Your task to perform on an android device: toggle javascript in the chrome app Image 0: 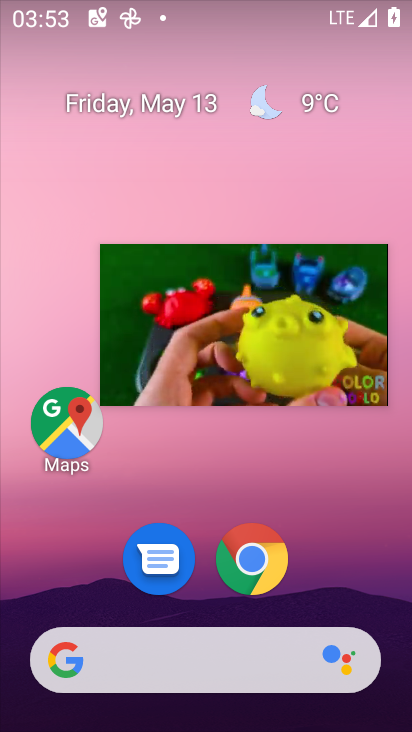
Step 0: click (250, 560)
Your task to perform on an android device: toggle javascript in the chrome app Image 1: 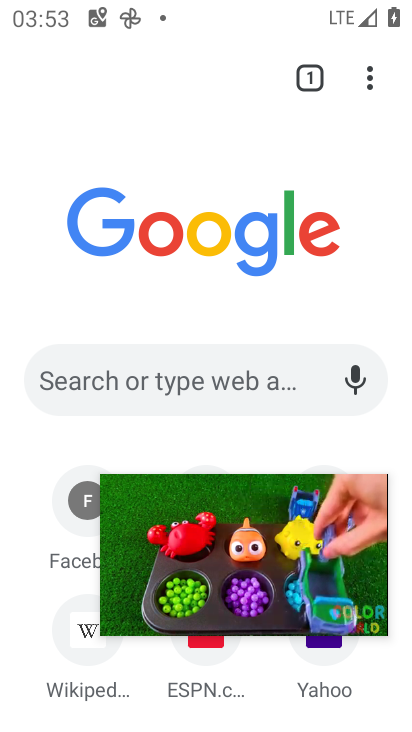
Step 1: click (367, 76)
Your task to perform on an android device: toggle javascript in the chrome app Image 2: 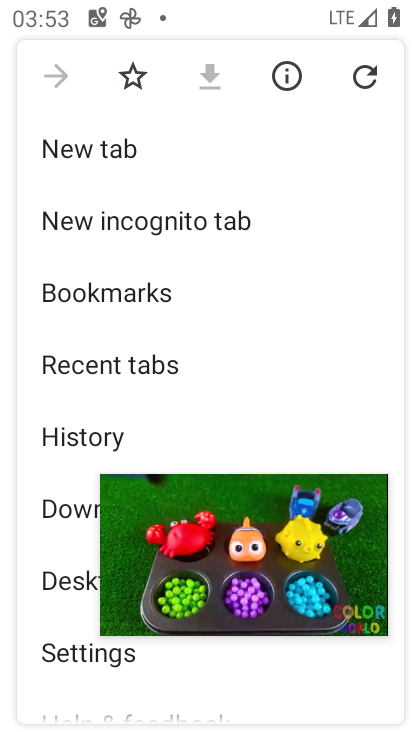
Step 2: drag from (212, 435) to (232, 193)
Your task to perform on an android device: toggle javascript in the chrome app Image 3: 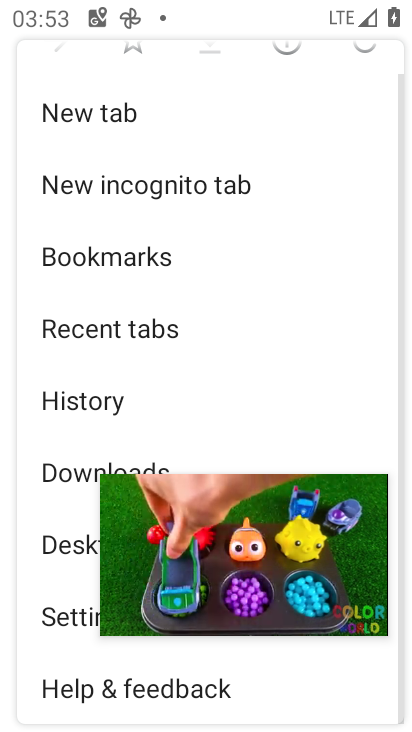
Step 3: drag from (237, 436) to (270, 214)
Your task to perform on an android device: toggle javascript in the chrome app Image 4: 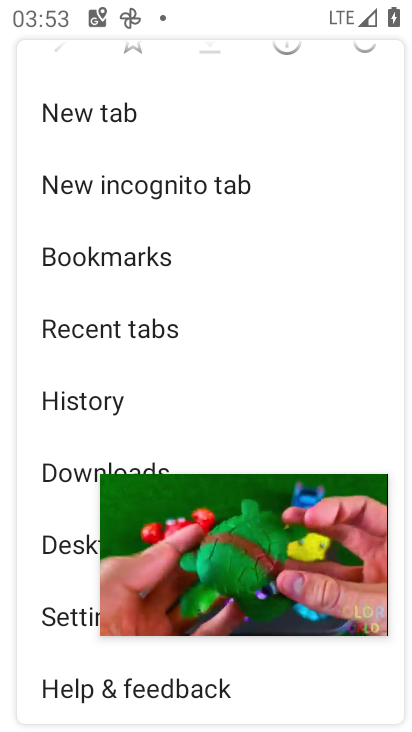
Step 4: click (75, 625)
Your task to perform on an android device: toggle javascript in the chrome app Image 5: 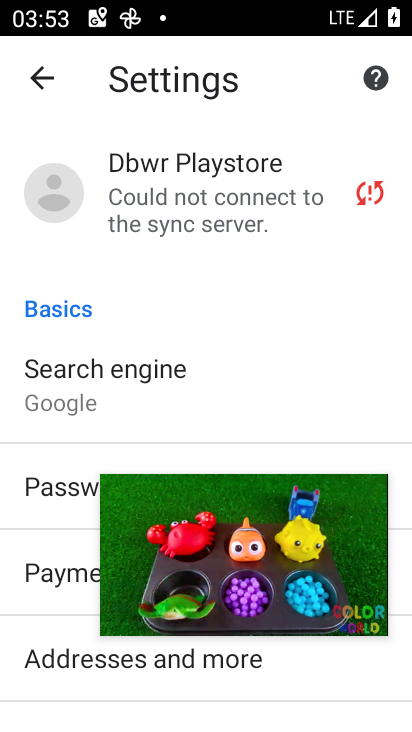
Step 5: drag from (38, 647) to (71, 426)
Your task to perform on an android device: toggle javascript in the chrome app Image 6: 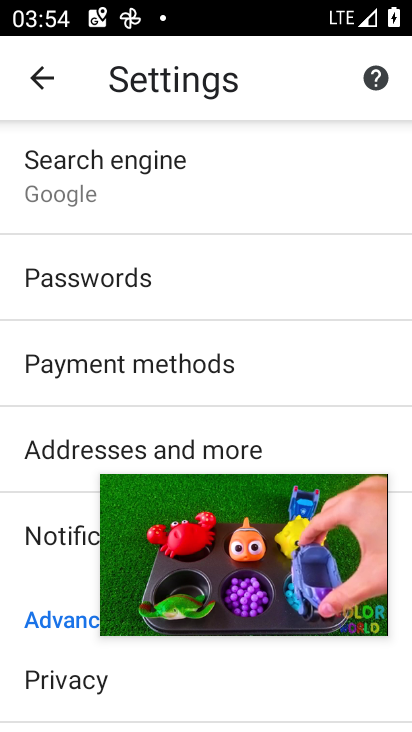
Step 6: drag from (38, 663) to (48, 451)
Your task to perform on an android device: toggle javascript in the chrome app Image 7: 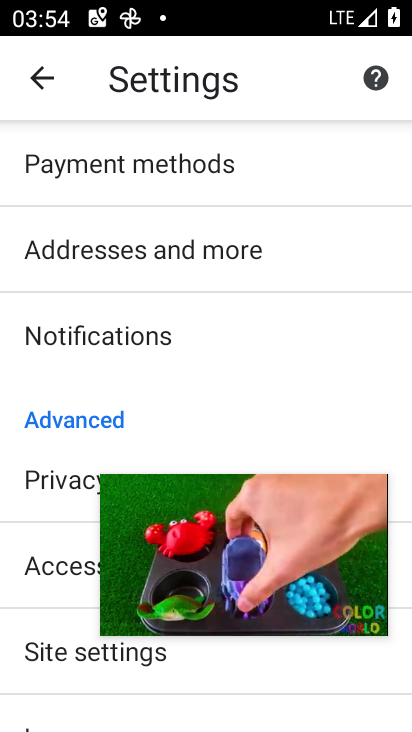
Step 7: drag from (48, 673) to (82, 368)
Your task to perform on an android device: toggle javascript in the chrome app Image 8: 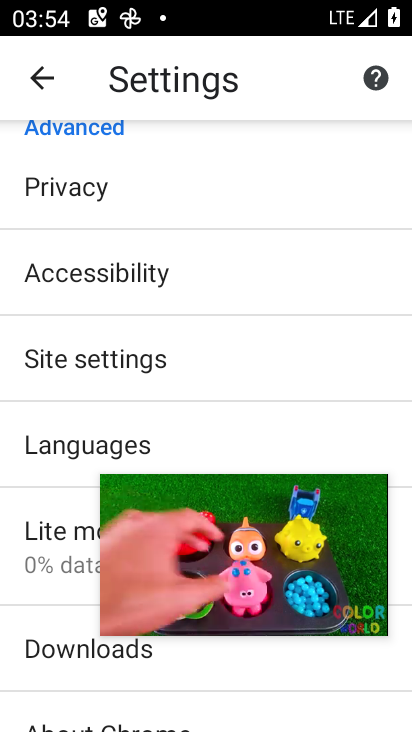
Step 8: click (67, 367)
Your task to perform on an android device: toggle javascript in the chrome app Image 9: 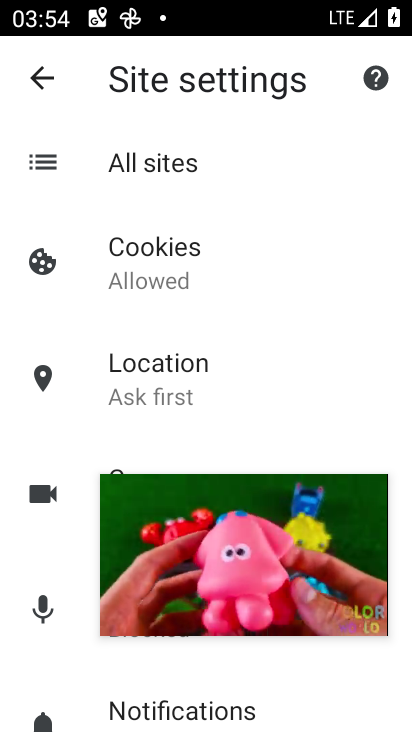
Step 9: drag from (88, 667) to (135, 294)
Your task to perform on an android device: toggle javascript in the chrome app Image 10: 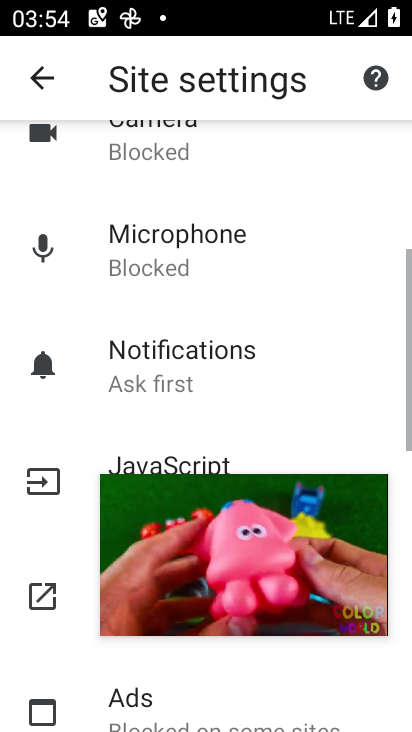
Step 10: drag from (89, 478) to (135, 241)
Your task to perform on an android device: toggle javascript in the chrome app Image 11: 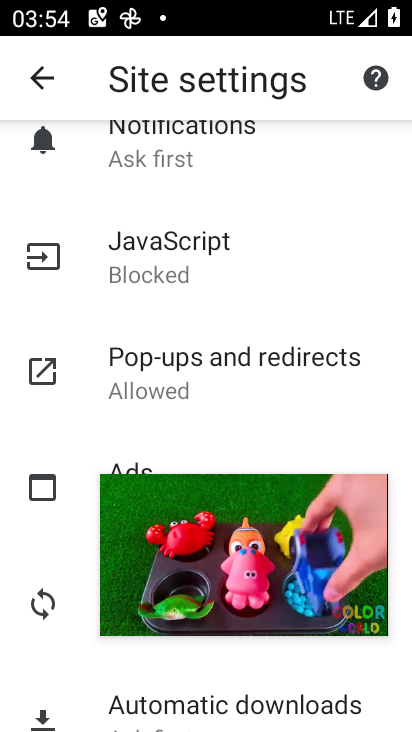
Step 11: click (173, 250)
Your task to perform on an android device: toggle javascript in the chrome app Image 12: 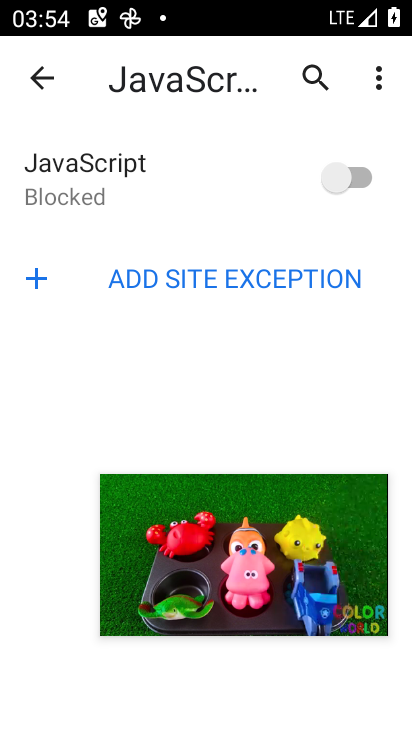
Step 12: click (360, 172)
Your task to perform on an android device: toggle javascript in the chrome app Image 13: 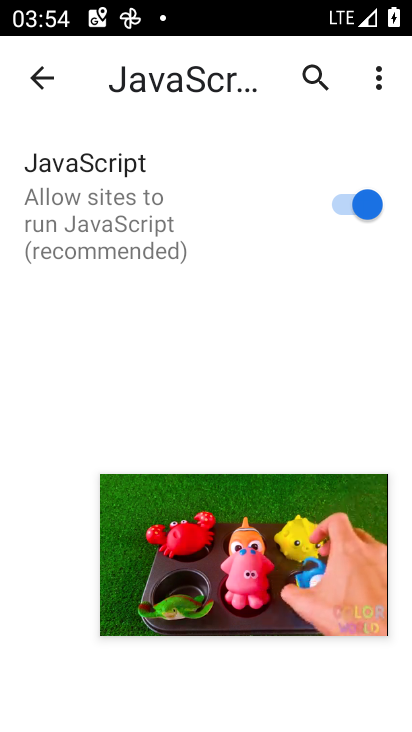
Step 13: task complete